Your task to perform on an android device: allow cookies in the chrome app Image 0: 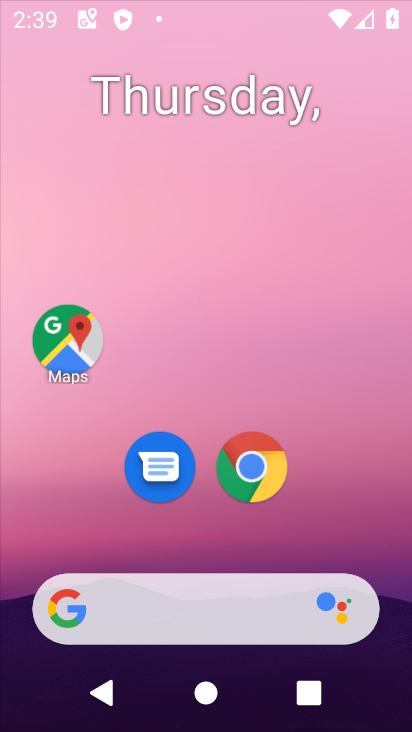
Step 0: drag from (226, 377) to (246, 196)
Your task to perform on an android device: allow cookies in the chrome app Image 1: 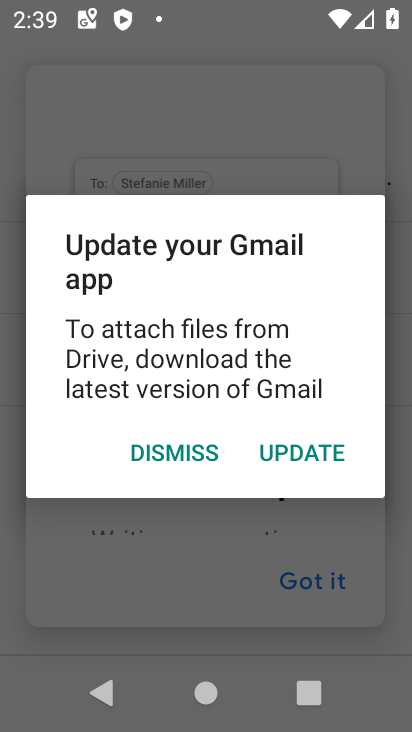
Step 1: press home button
Your task to perform on an android device: allow cookies in the chrome app Image 2: 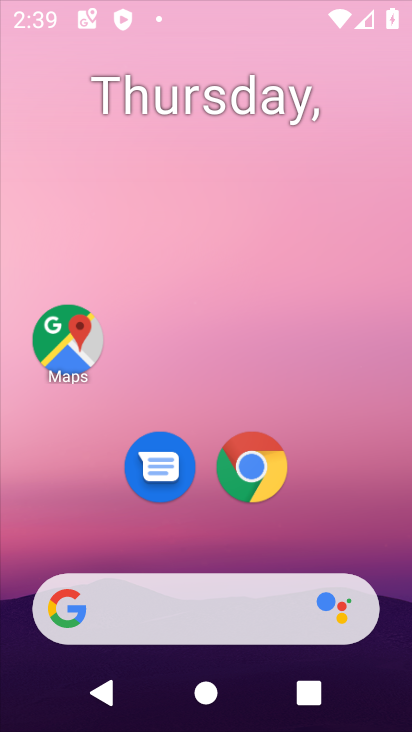
Step 2: drag from (241, 418) to (272, 197)
Your task to perform on an android device: allow cookies in the chrome app Image 3: 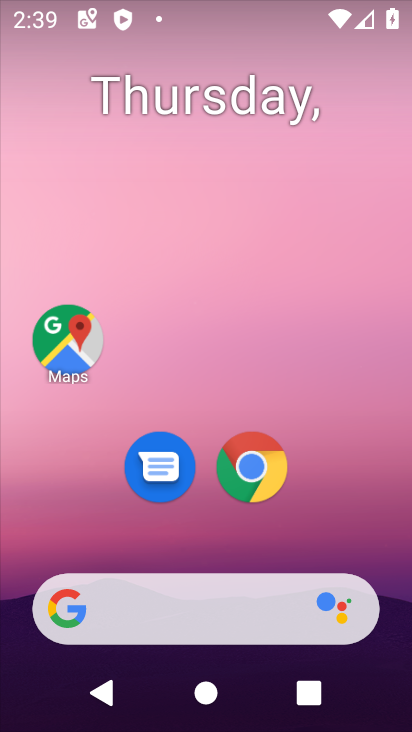
Step 3: drag from (201, 528) to (262, 128)
Your task to perform on an android device: allow cookies in the chrome app Image 4: 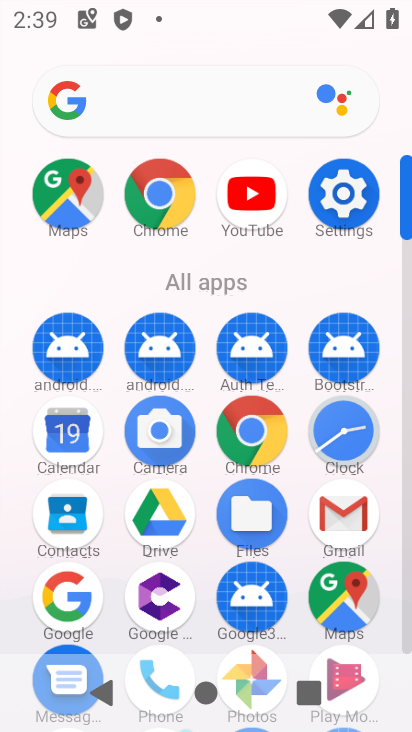
Step 4: click (252, 435)
Your task to perform on an android device: allow cookies in the chrome app Image 5: 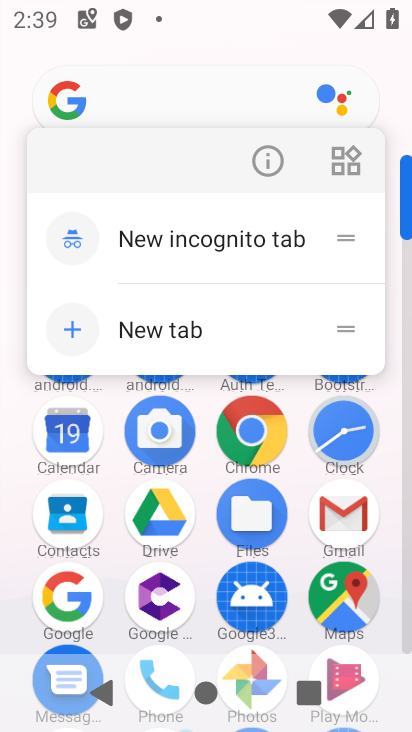
Step 5: click (271, 164)
Your task to perform on an android device: allow cookies in the chrome app Image 6: 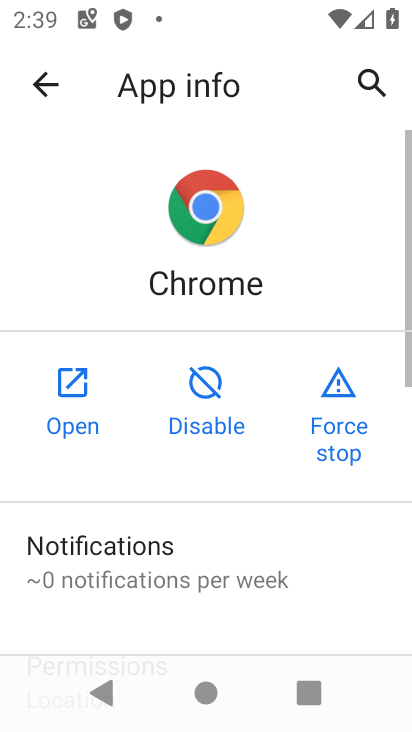
Step 6: click (71, 367)
Your task to perform on an android device: allow cookies in the chrome app Image 7: 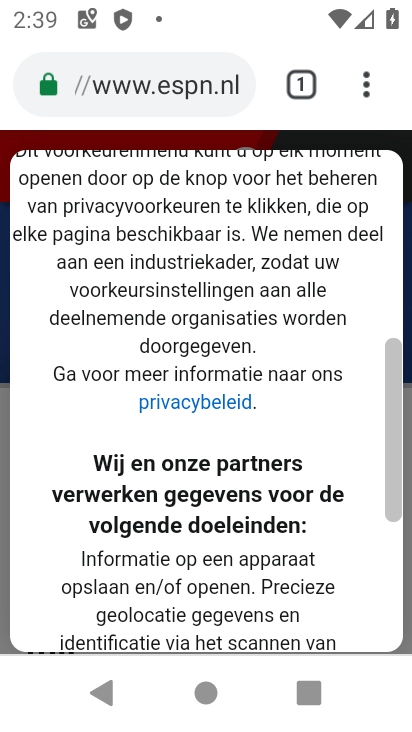
Step 7: drag from (178, 535) to (269, 222)
Your task to perform on an android device: allow cookies in the chrome app Image 8: 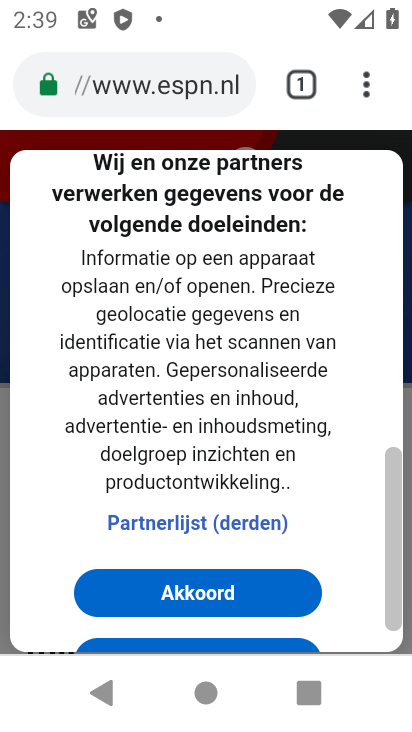
Step 8: drag from (274, 205) to (256, 597)
Your task to perform on an android device: allow cookies in the chrome app Image 9: 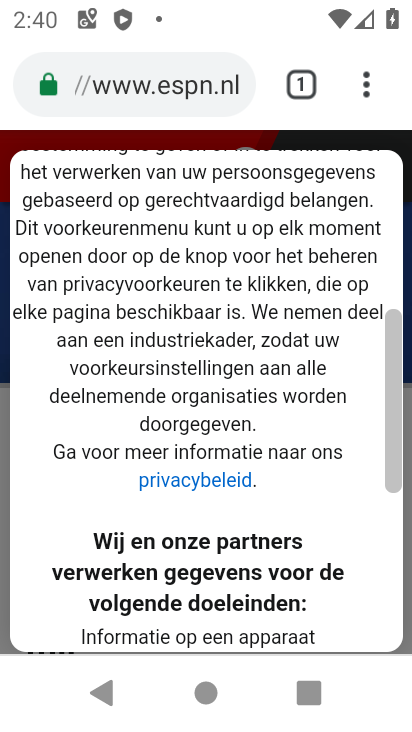
Step 9: click (365, 99)
Your task to perform on an android device: allow cookies in the chrome app Image 10: 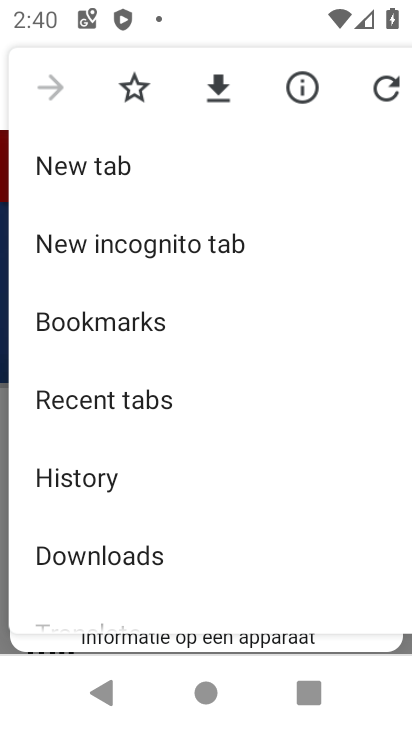
Step 10: drag from (184, 525) to (193, 166)
Your task to perform on an android device: allow cookies in the chrome app Image 11: 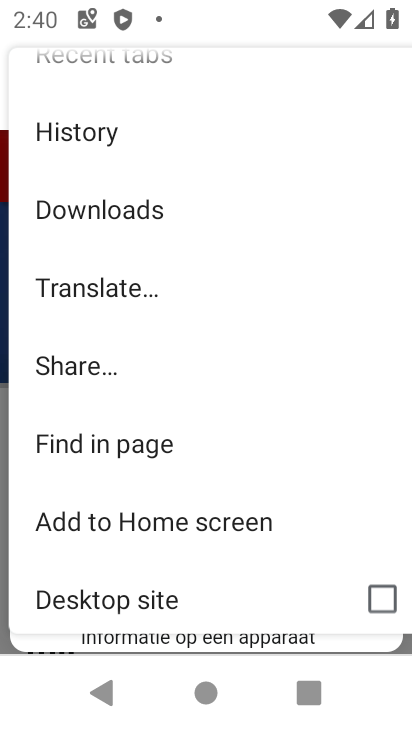
Step 11: drag from (200, 484) to (237, 246)
Your task to perform on an android device: allow cookies in the chrome app Image 12: 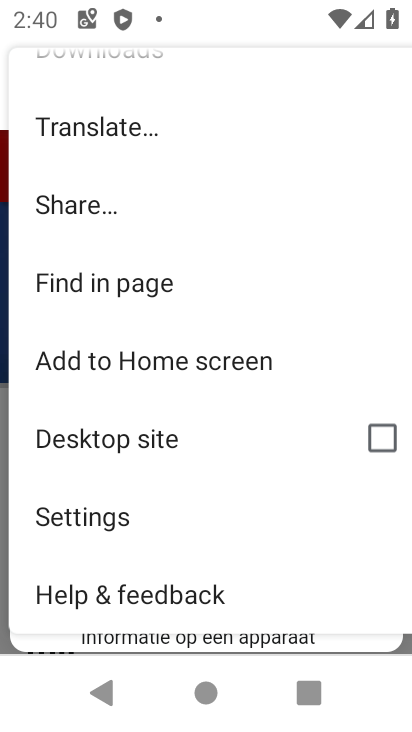
Step 12: click (144, 517)
Your task to perform on an android device: allow cookies in the chrome app Image 13: 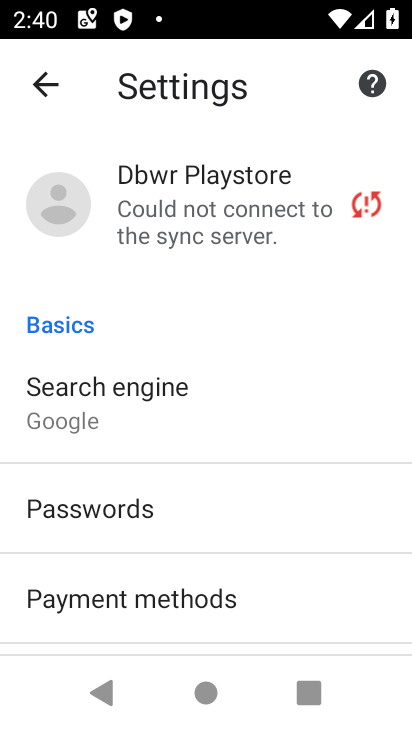
Step 13: drag from (197, 590) to (349, 189)
Your task to perform on an android device: allow cookies in the chrome app Image 14: 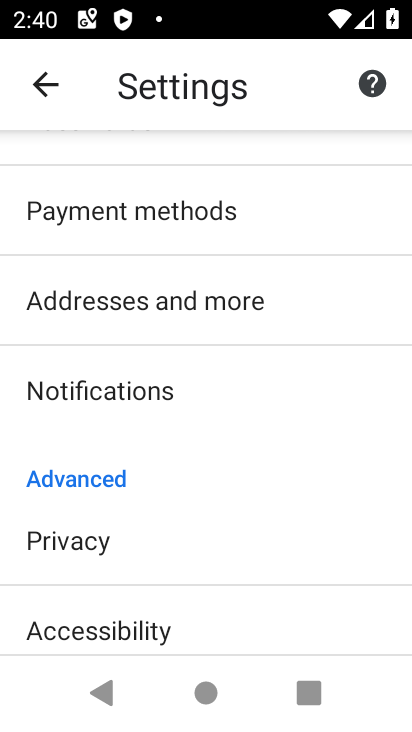
Step 14: drag from (229, 460) to (244, 255)
Your task to perform on an android device: allow cookies in the chrome app Image 15: 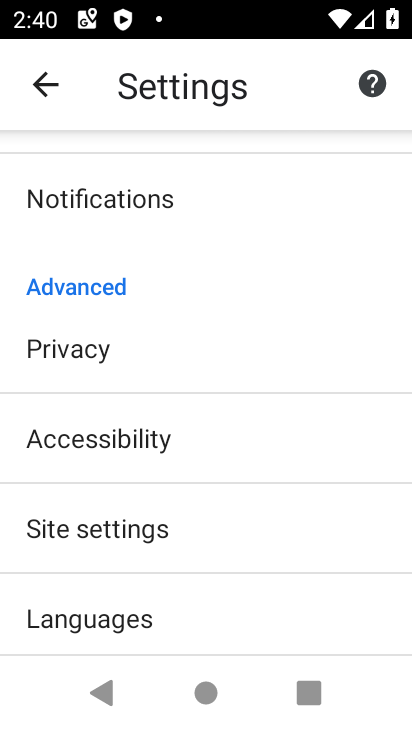
Step 15: drag from (235, 545) to (237, 245)
Your task to perform on an android device: allow cookies in the chrome app Image 16: 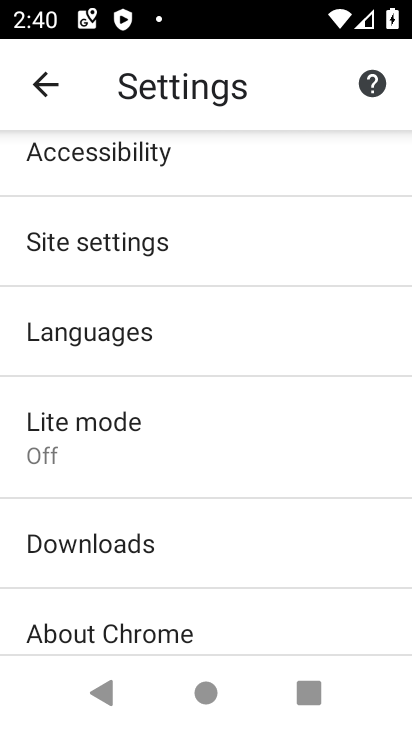
Step 16: drag from (193, 513) to (268, 189)
Your task to perform on an android device: allow cookies in the chrome app Image 17: 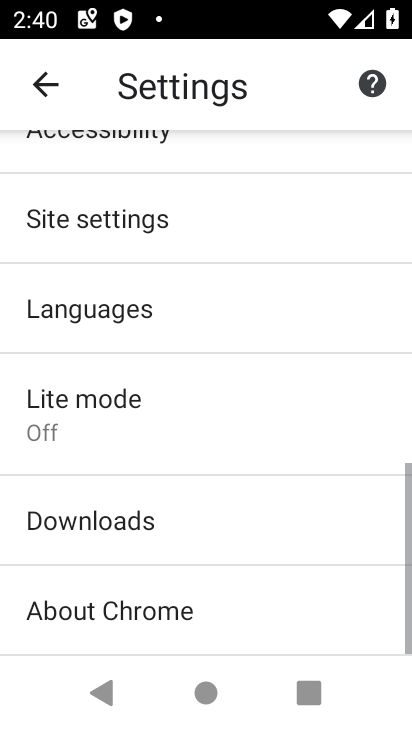
Step 17: drag from (241, 205) to (256, 267)
Your task to perform on an android device: allow cookies in the chrome app Image 18: 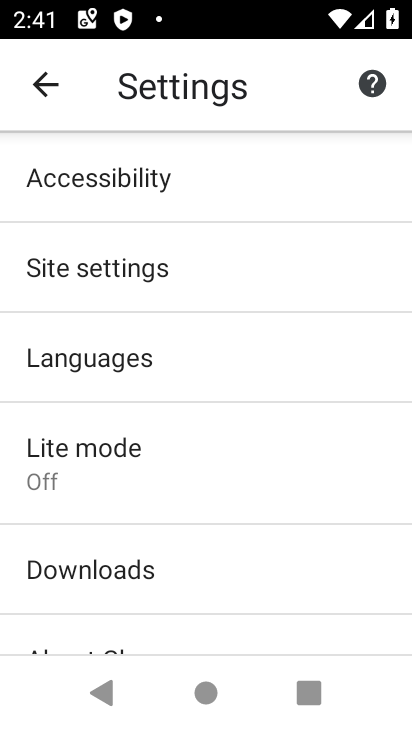
Step 18: click (228, 265)
Your task to perform on an android device: allow cookies in the chrome app Image 19: 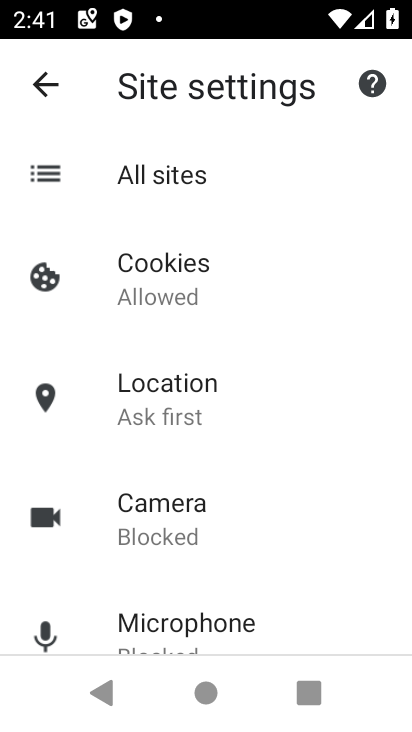
Step 19: click (240, 293)
Your task to perform on an android device: allow cookies in the chrome app Image 20: 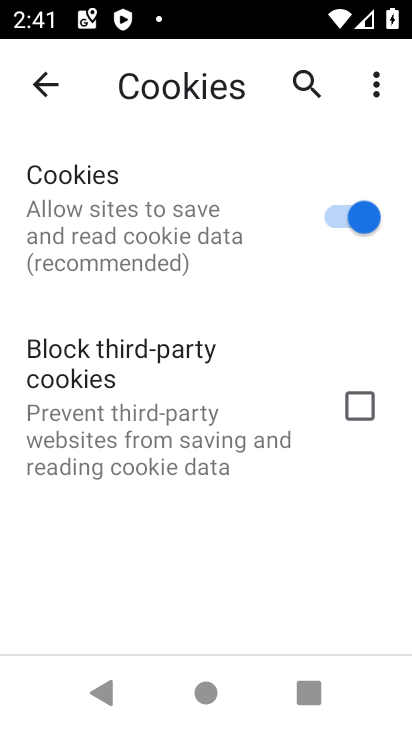
Step 20: task complete